Your task to perform on an android device: change alarm snooze length Image 0: 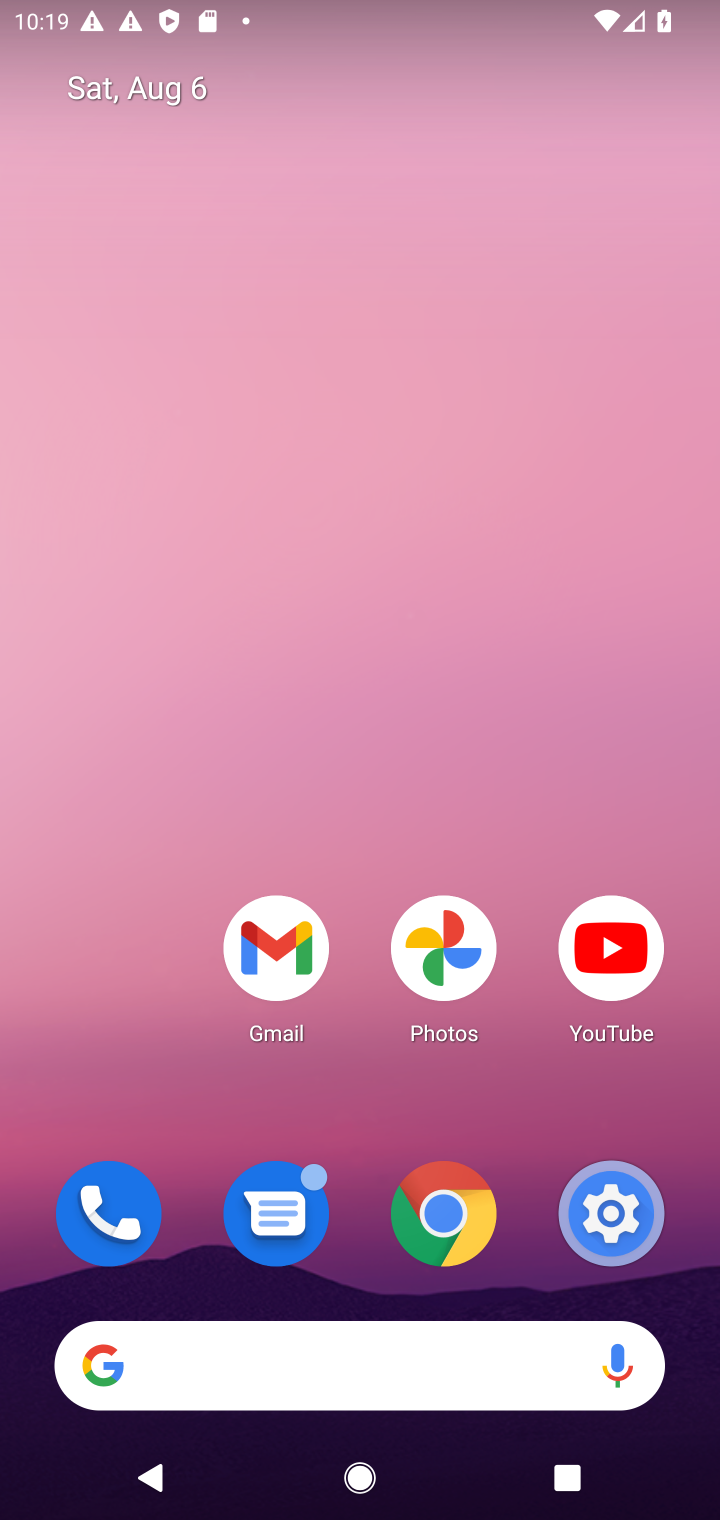
Step 0: drag from (342, 830) to (482, 204)
Your task to perform on an android device: change alarm snooze length Image 1: 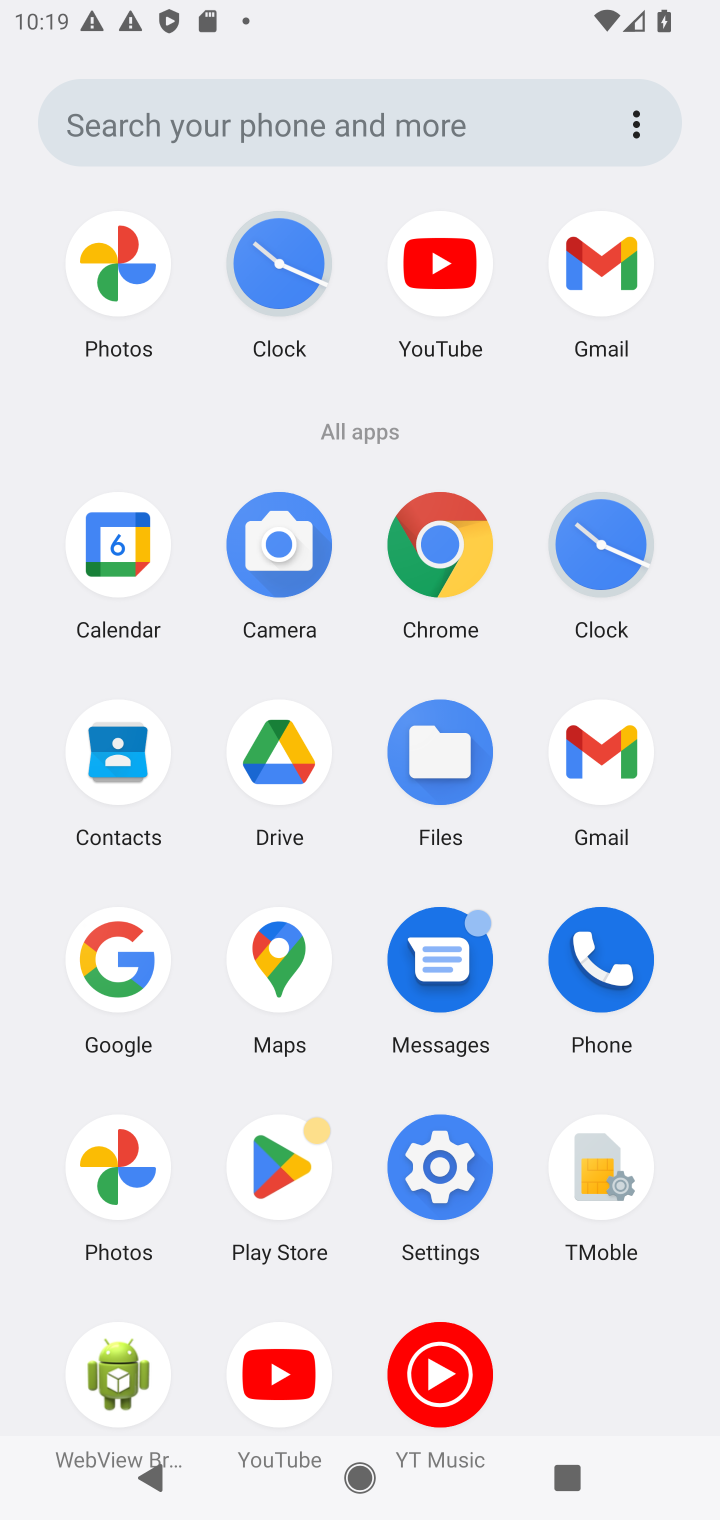
Step 1: click (295, 255)
Your task to perform on an android device: change alarm snooze length Image 2: 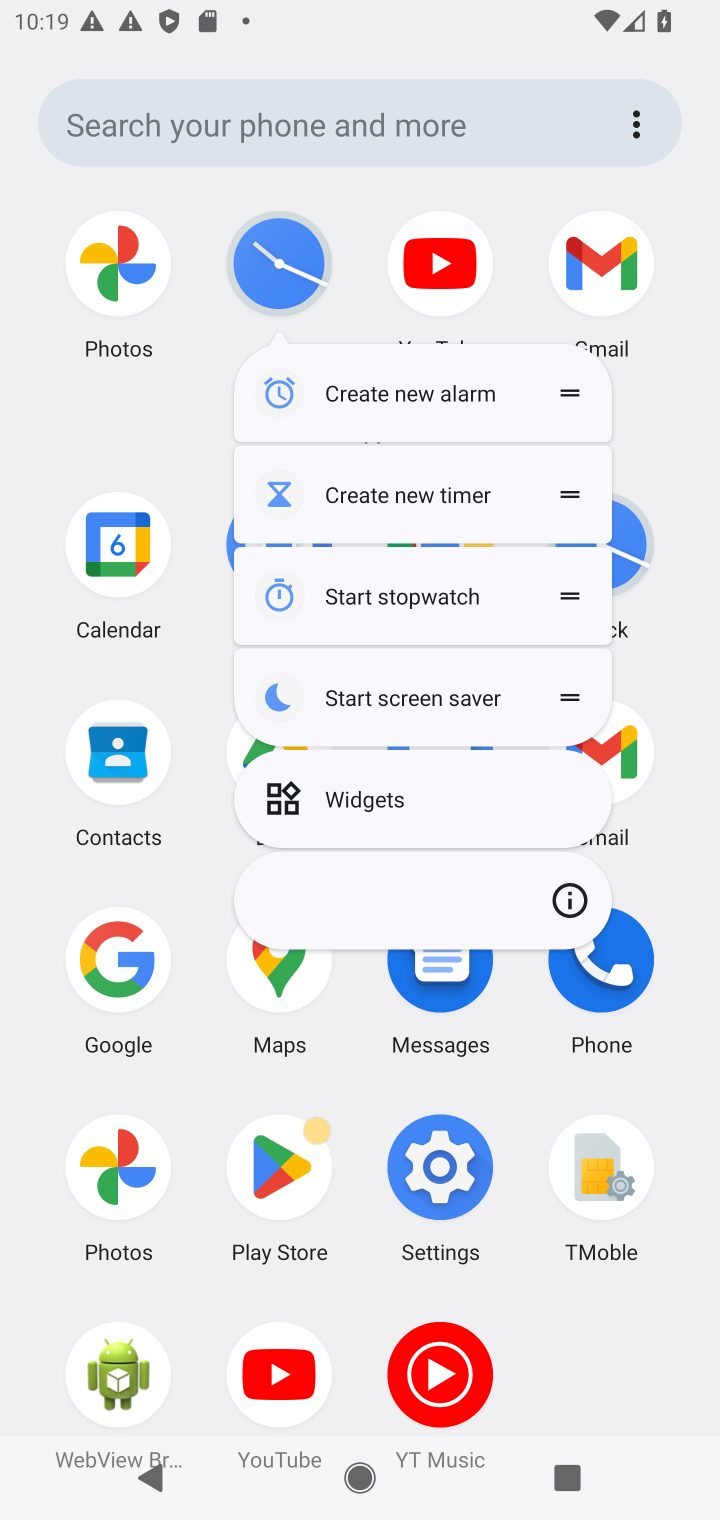
Step 2: click (282, 273)
Your task to perform on an android device: change alarm snooze length Image 3: 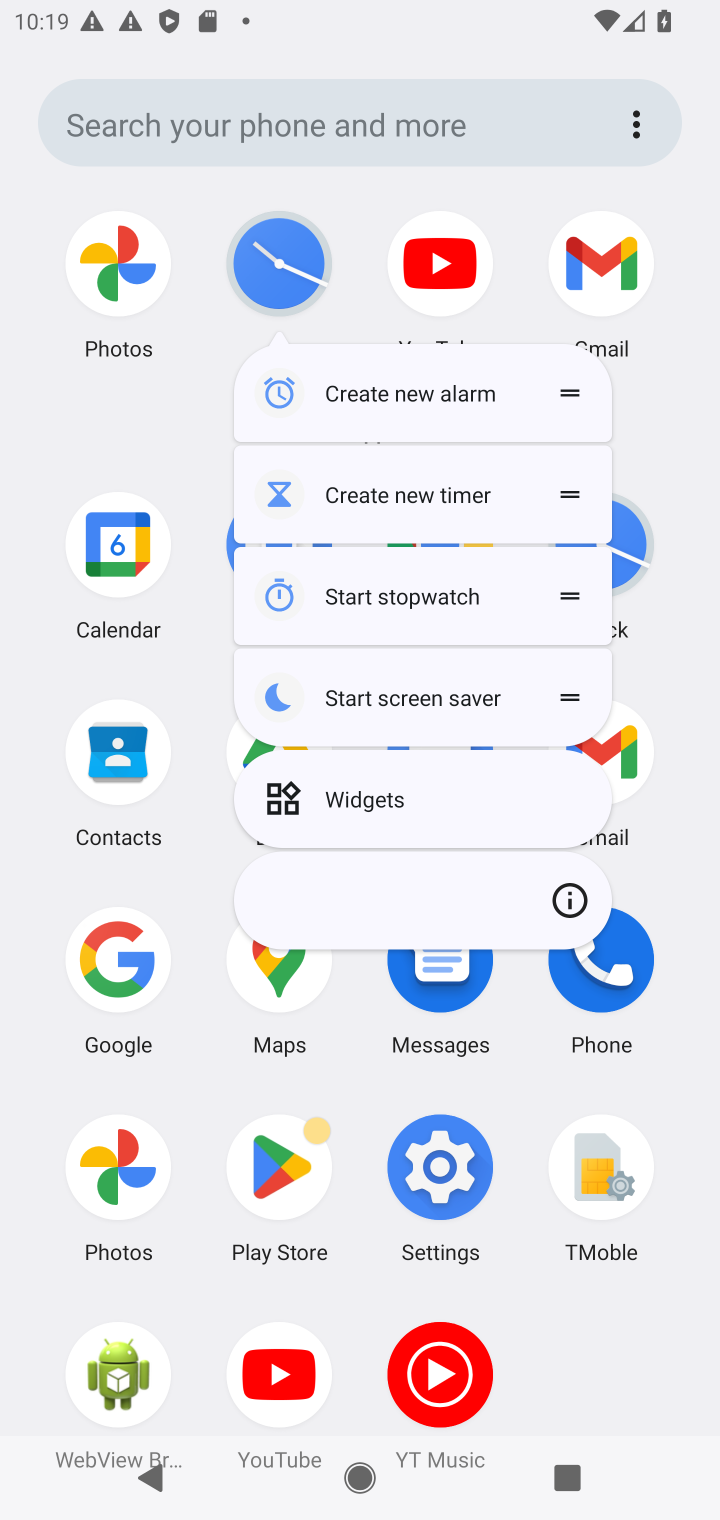
Step 3: click (255, 314)
Your task to perform on an android device: change alarm snooze length Image 4: 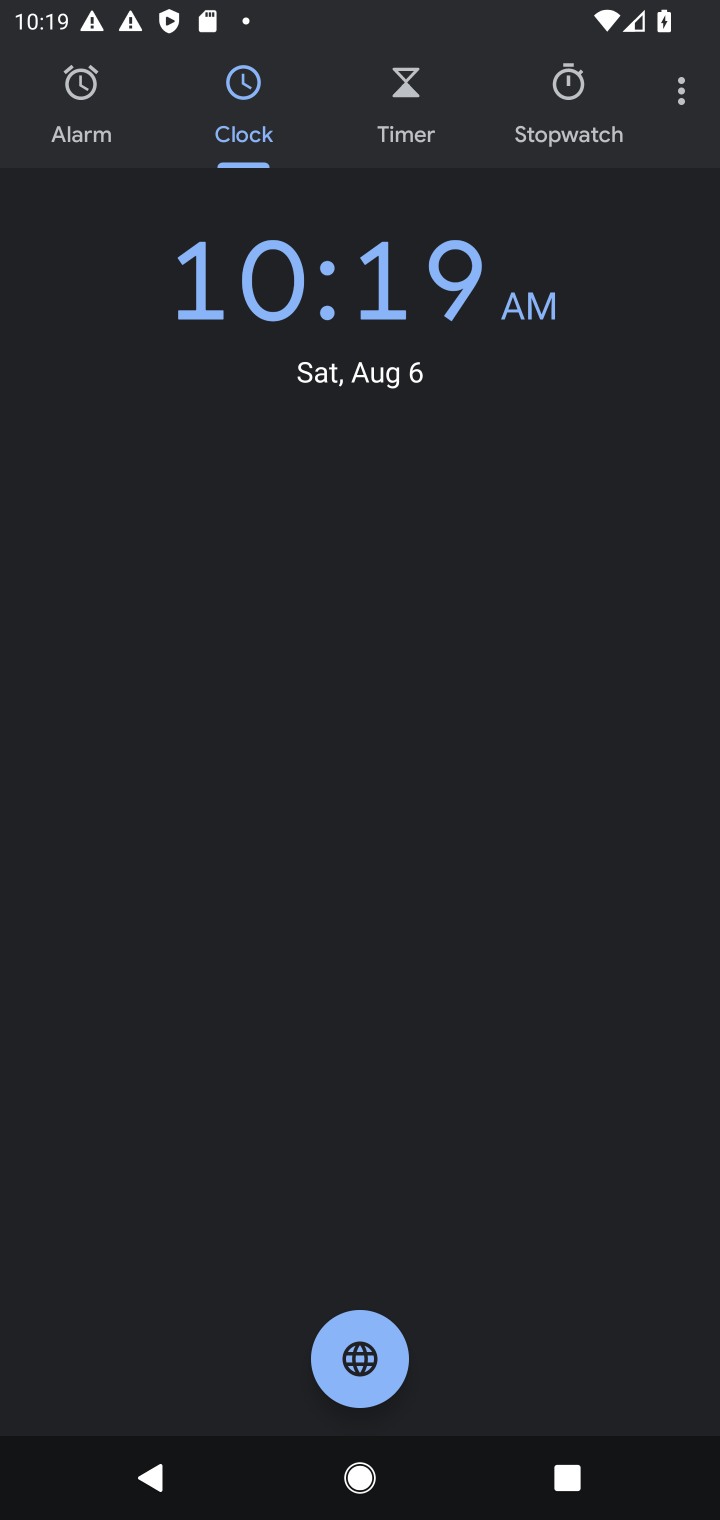
Step 4: click (678, 86)
Your task to perform on an android device: change alarm snooze length Image 5: 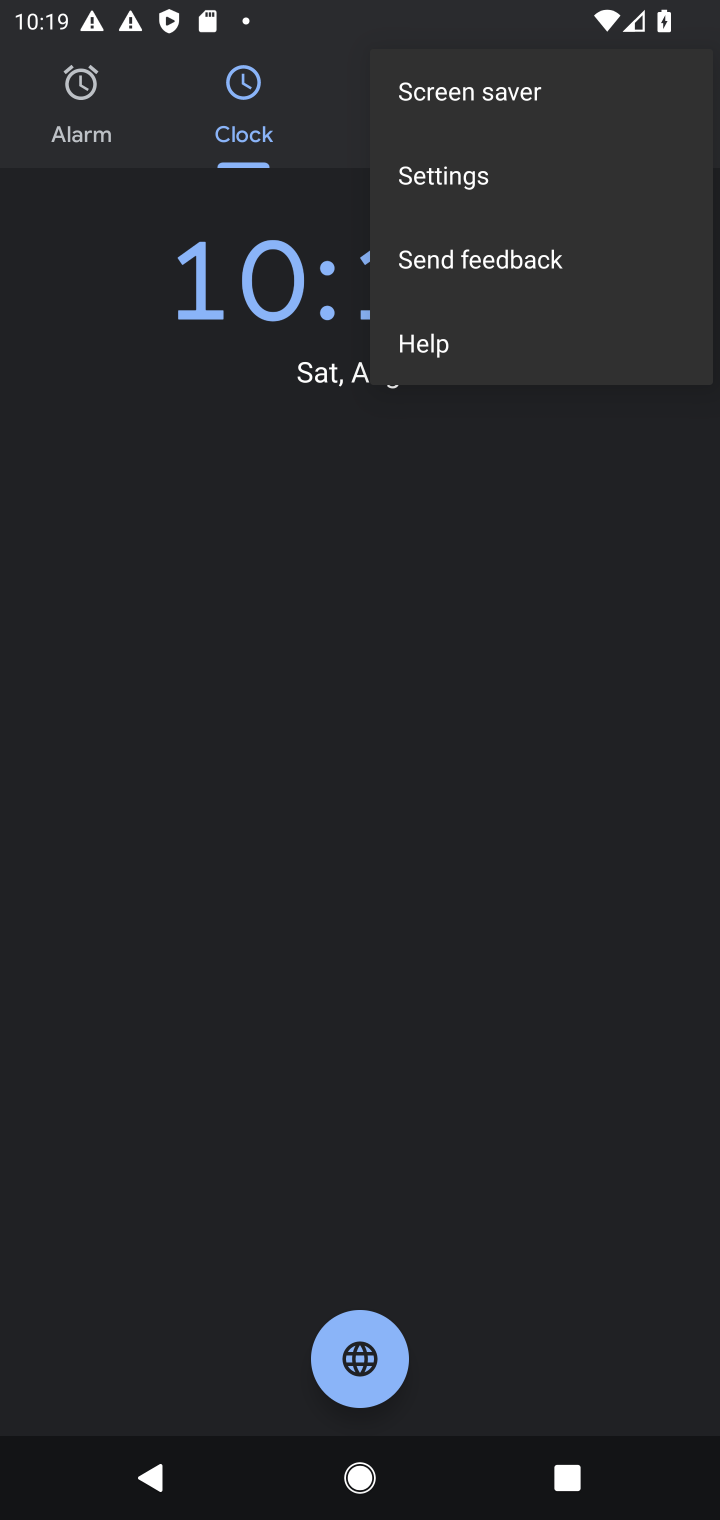
Step 5: click (450, 178)
Your task to perform on an android device: change alarm snooze length Image 6: 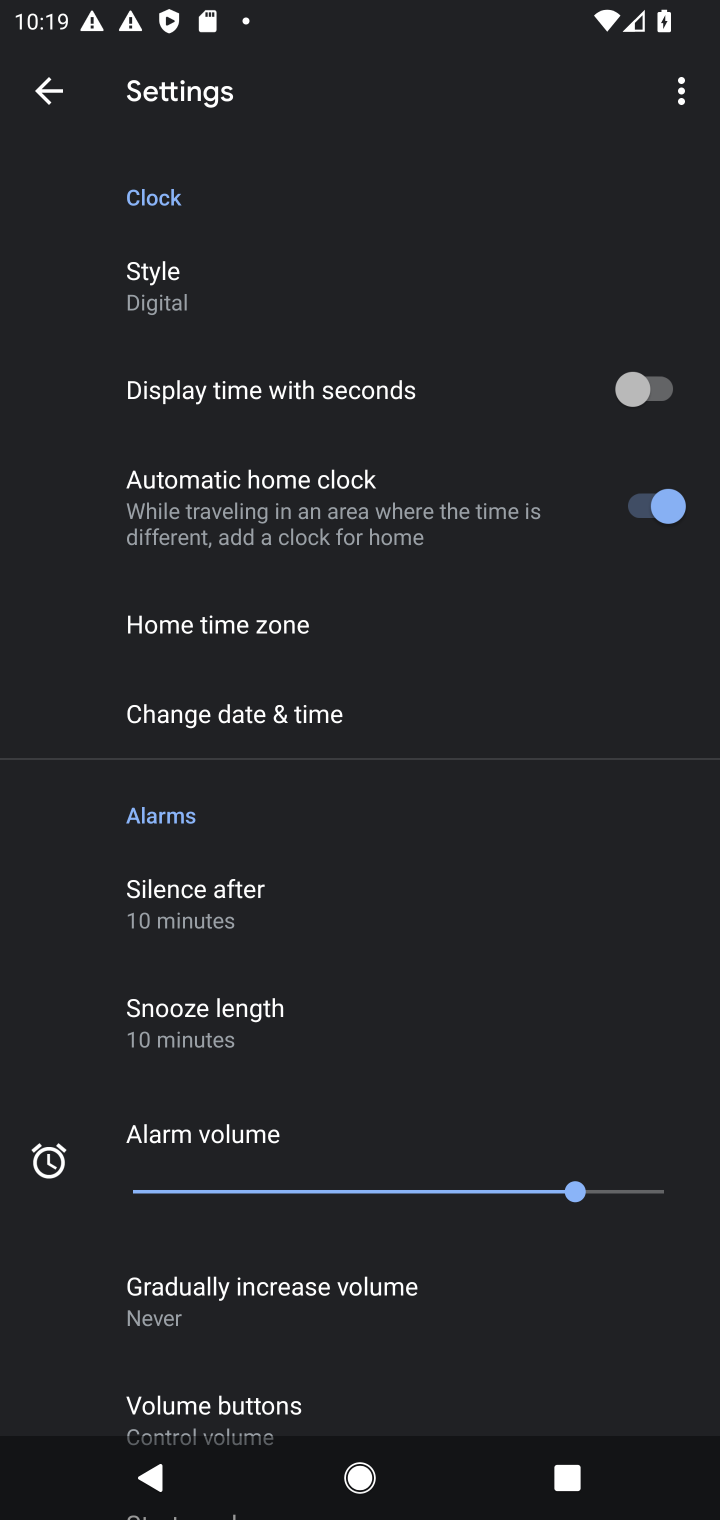
Step 6: click (230, 1022)
Your task to perform on an android device: change alarm snooze length Image 7: 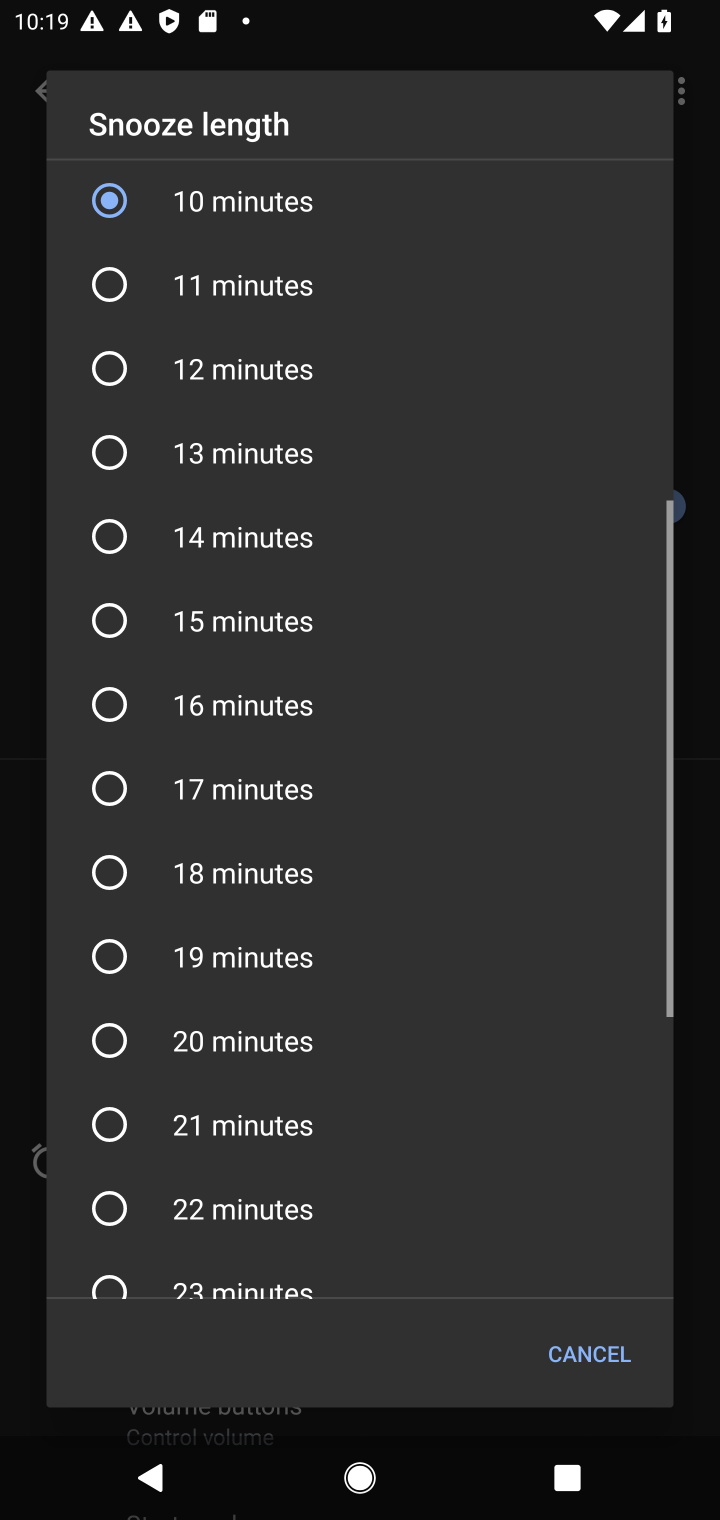
Step 7: click (163, 874)
Your task to perform on an android device: change alarm snooze length Image 8: 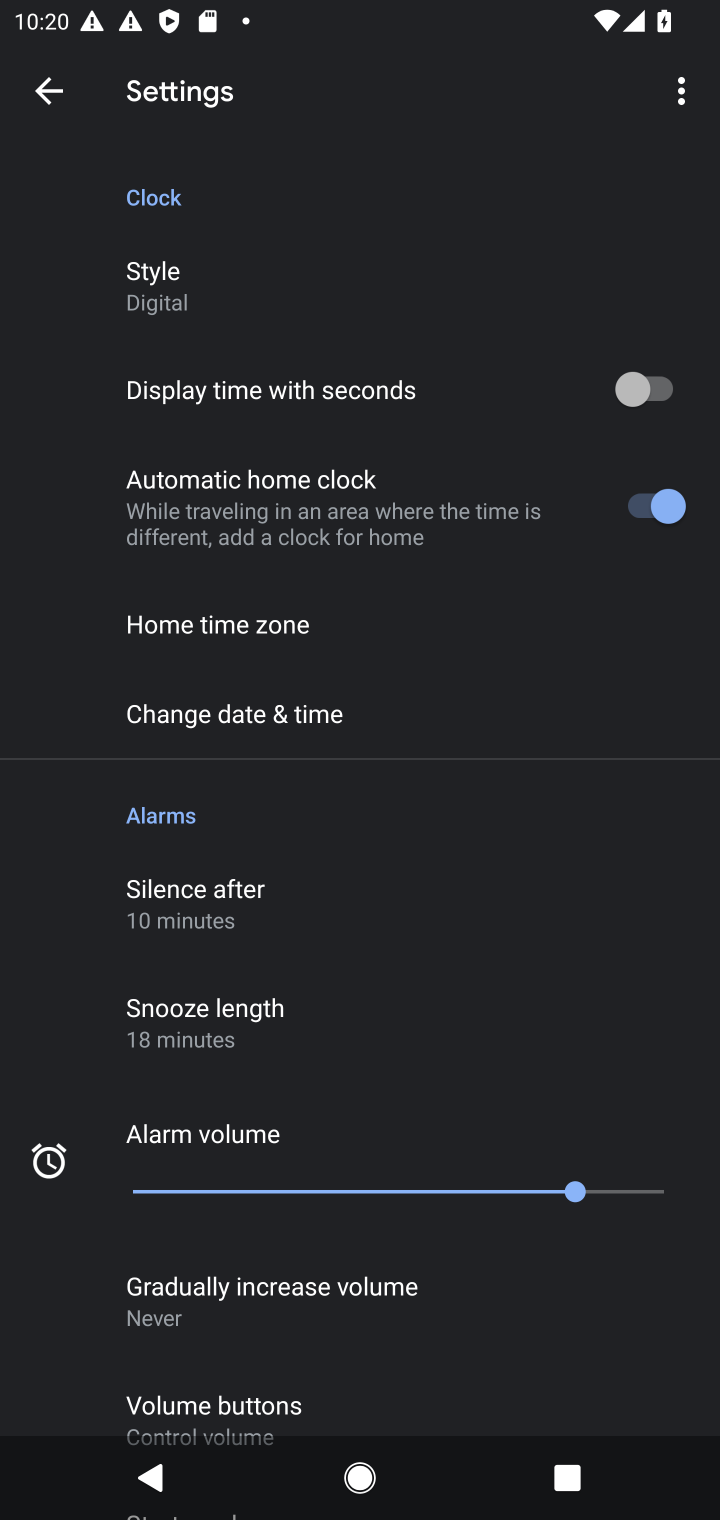
Step 8: task complete